Your task to perform on an android device: What is the recent news? Image 0: 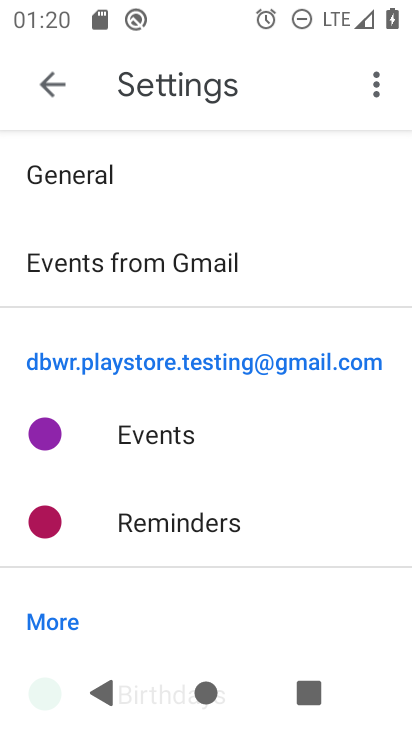
Step 0: press home button
Your task to perform on an android device: What is the recent news? Image 1: 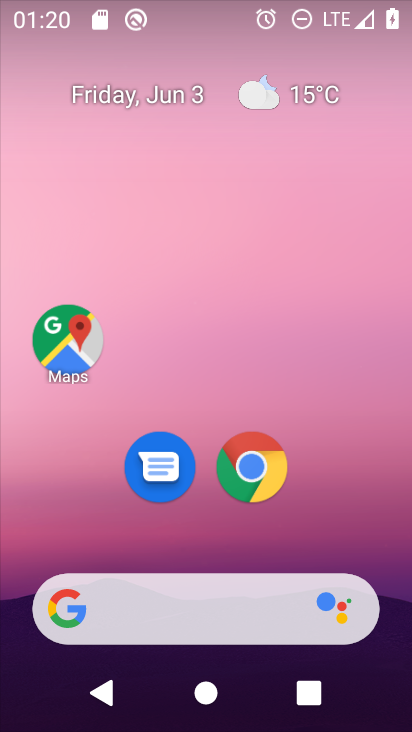
Step 1: task complete